Your task to perform on an android device: change your default location settings in chrome Image 0: 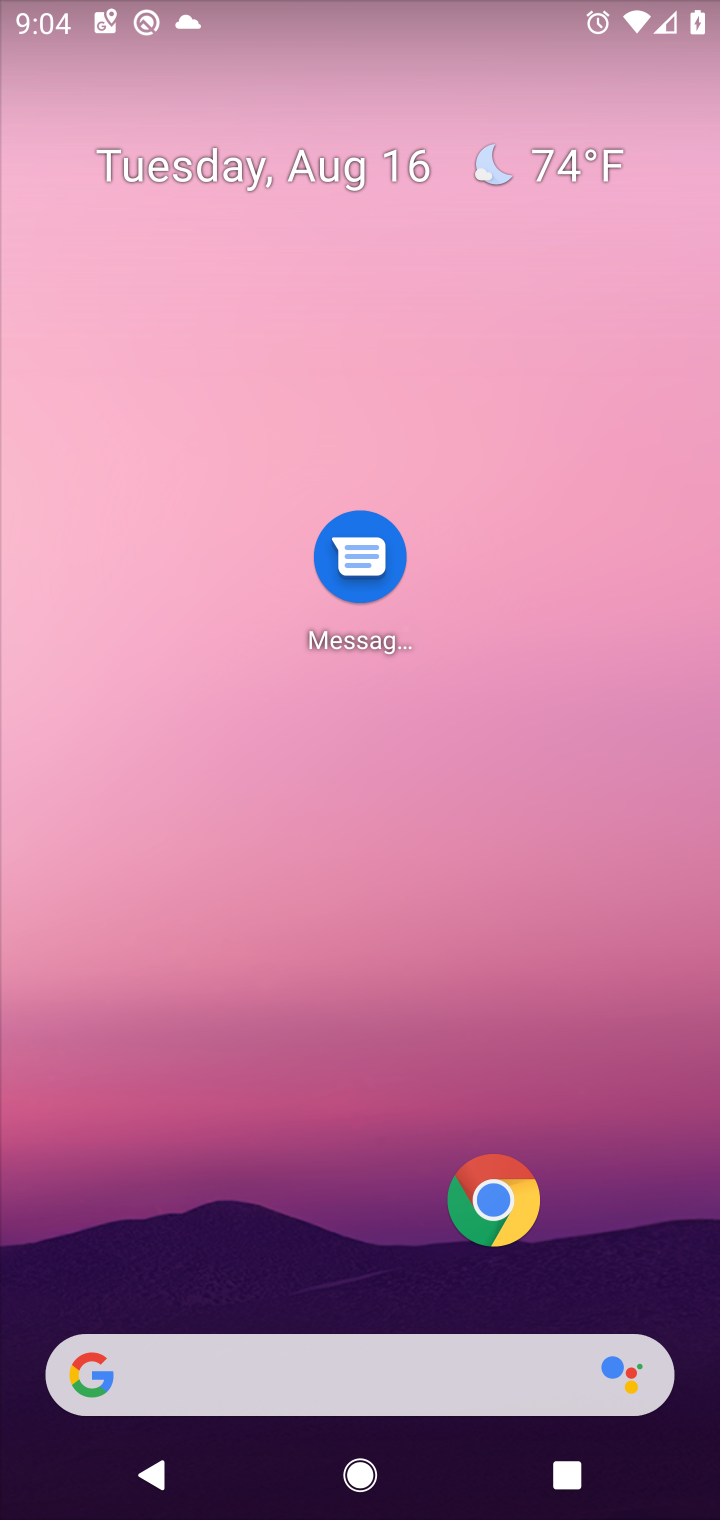
Step 0: click (476, 1203)
Your task to perform on an android device: change your default location settings in chrome Image 1: 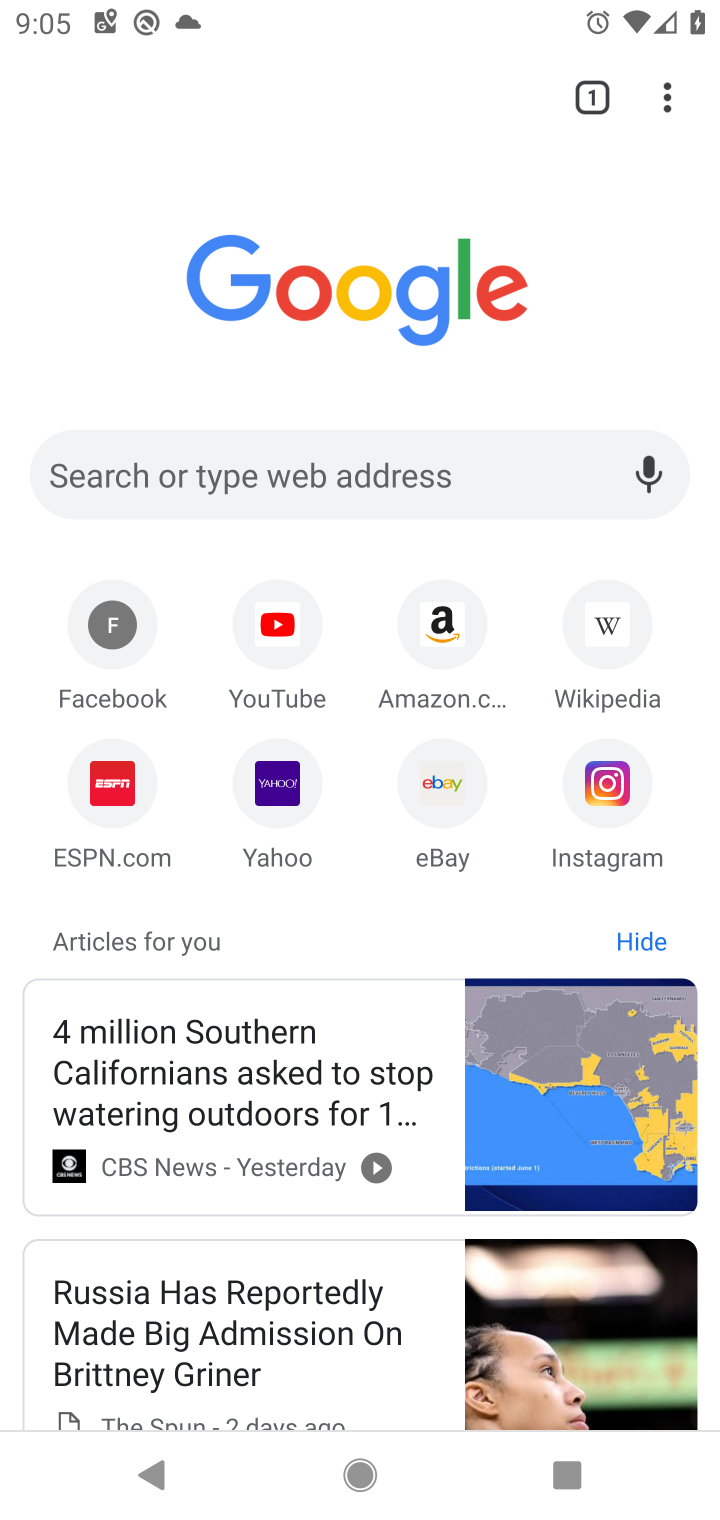
Step 1: click (669, 106)
Your task to perform on an android device: change your default location settings in chrome Image 2: 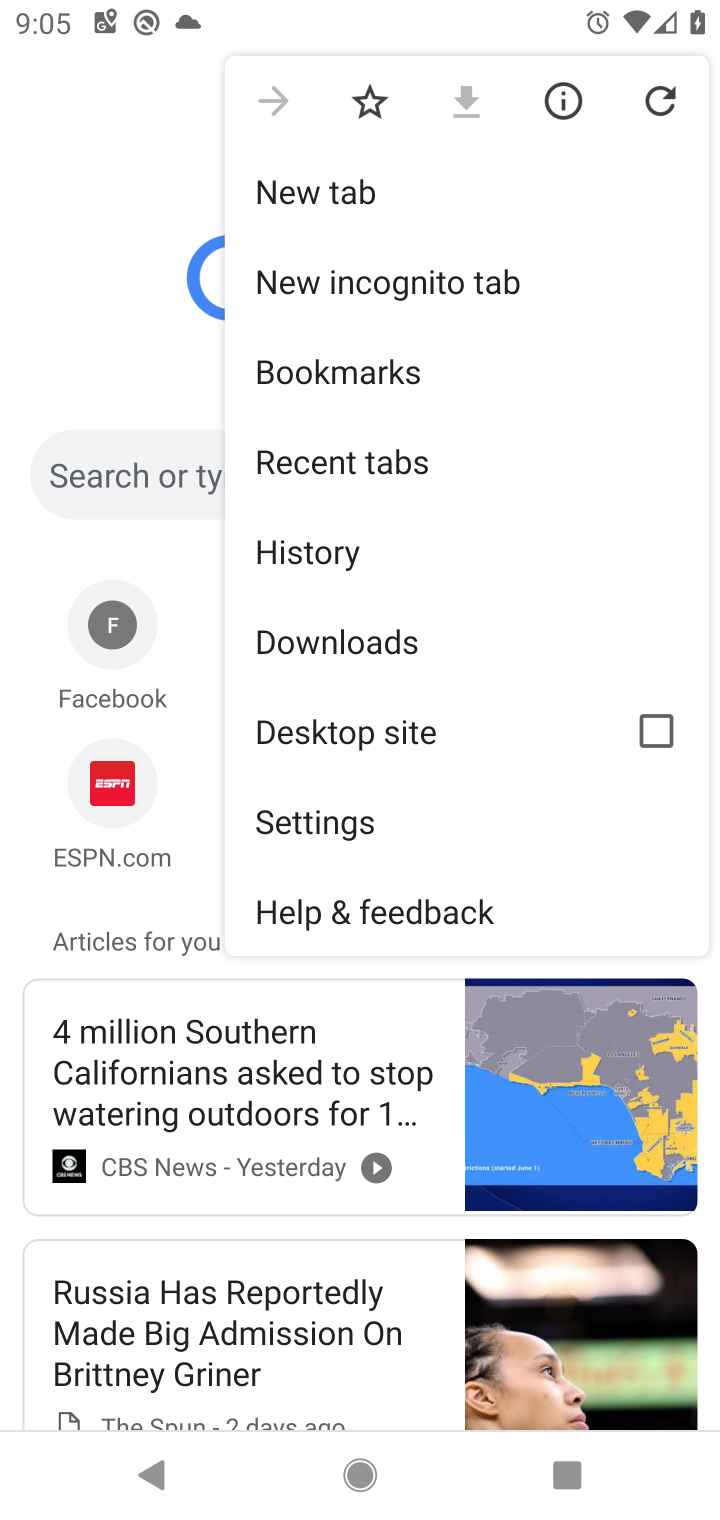
Step 2: click (342, 817)
Your task to perform on an android device: change your default location settings in chrome Image 3: 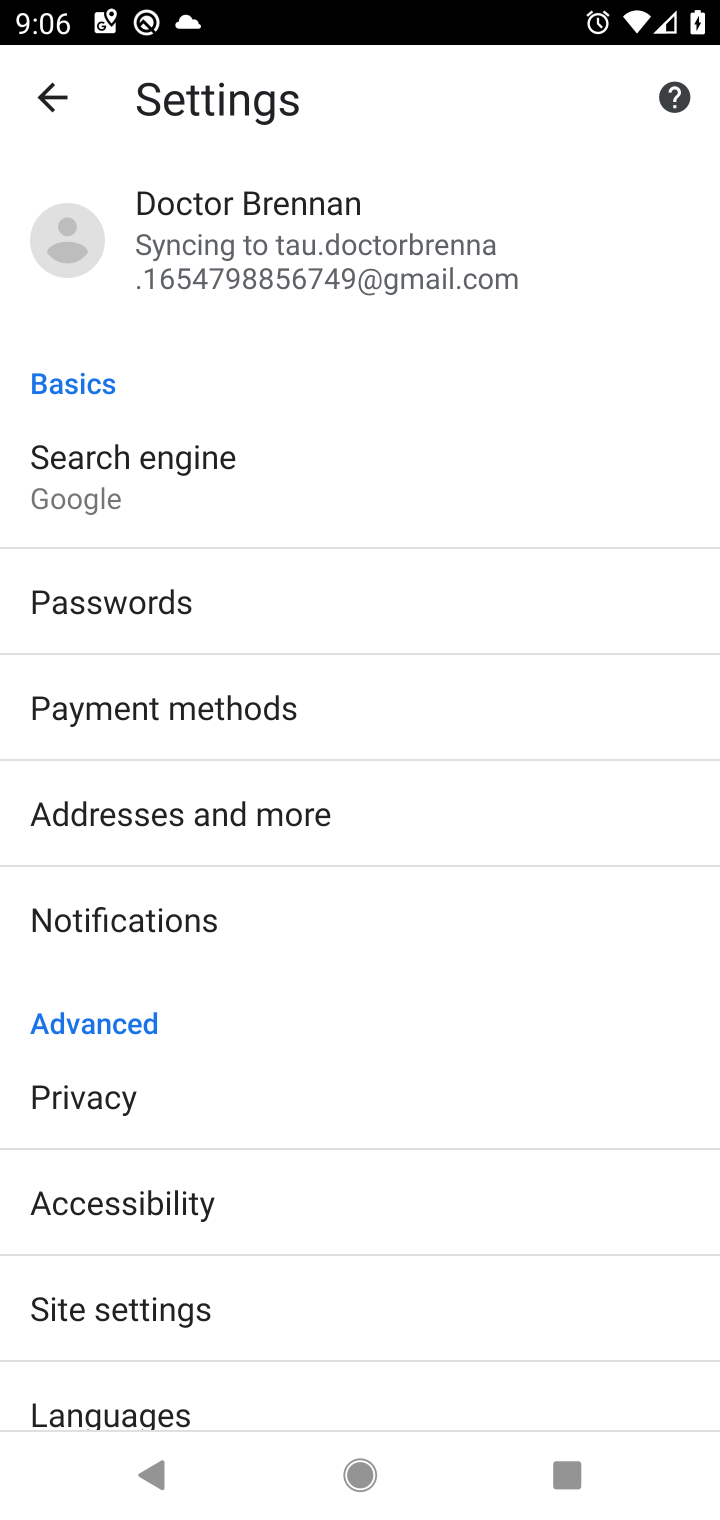
Step 3: drag from (347, 1313) to (345, 699)
Your task to perform on an android device: change your default location settings in chrome Image 4: 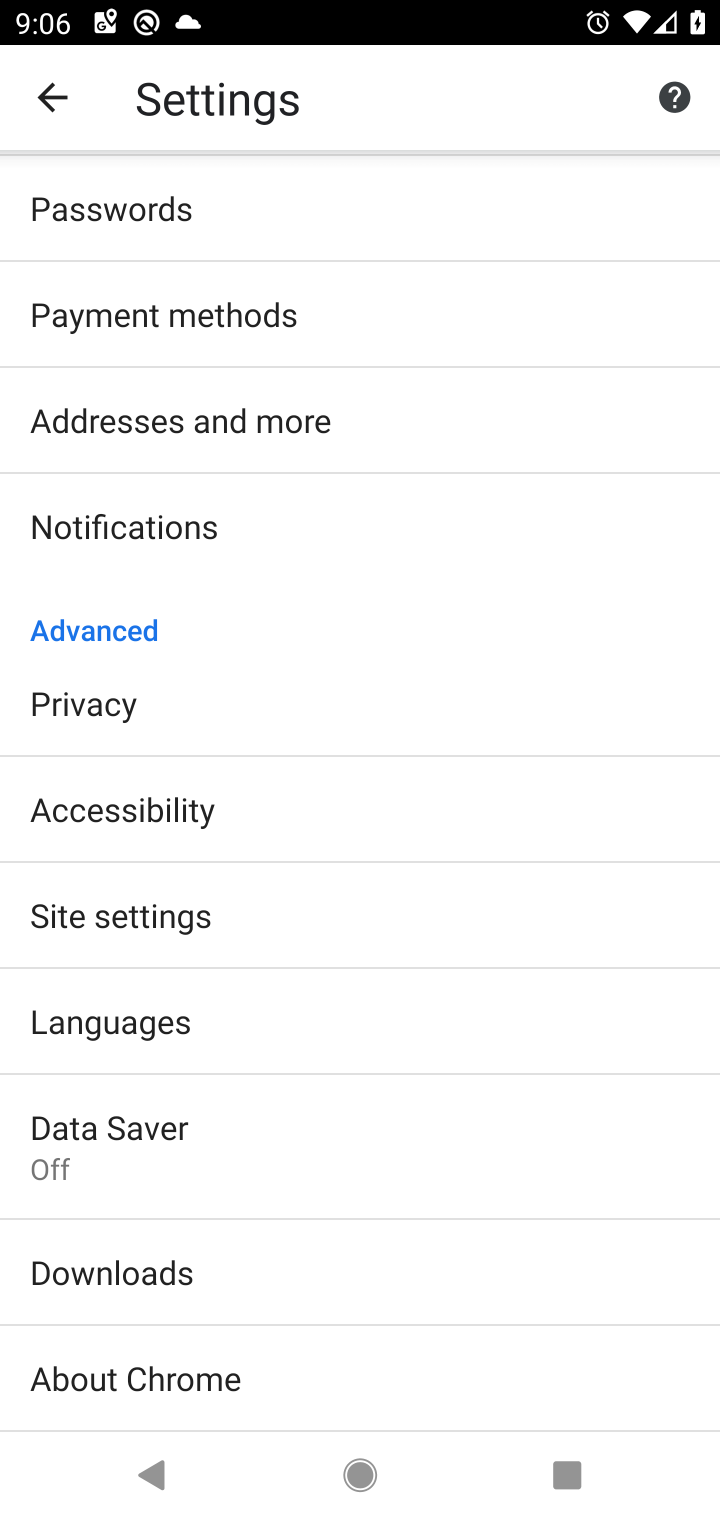
Step 4: click (445, 1198)
Your task to perform on an android device: change your default location settings in chrome Image 5: 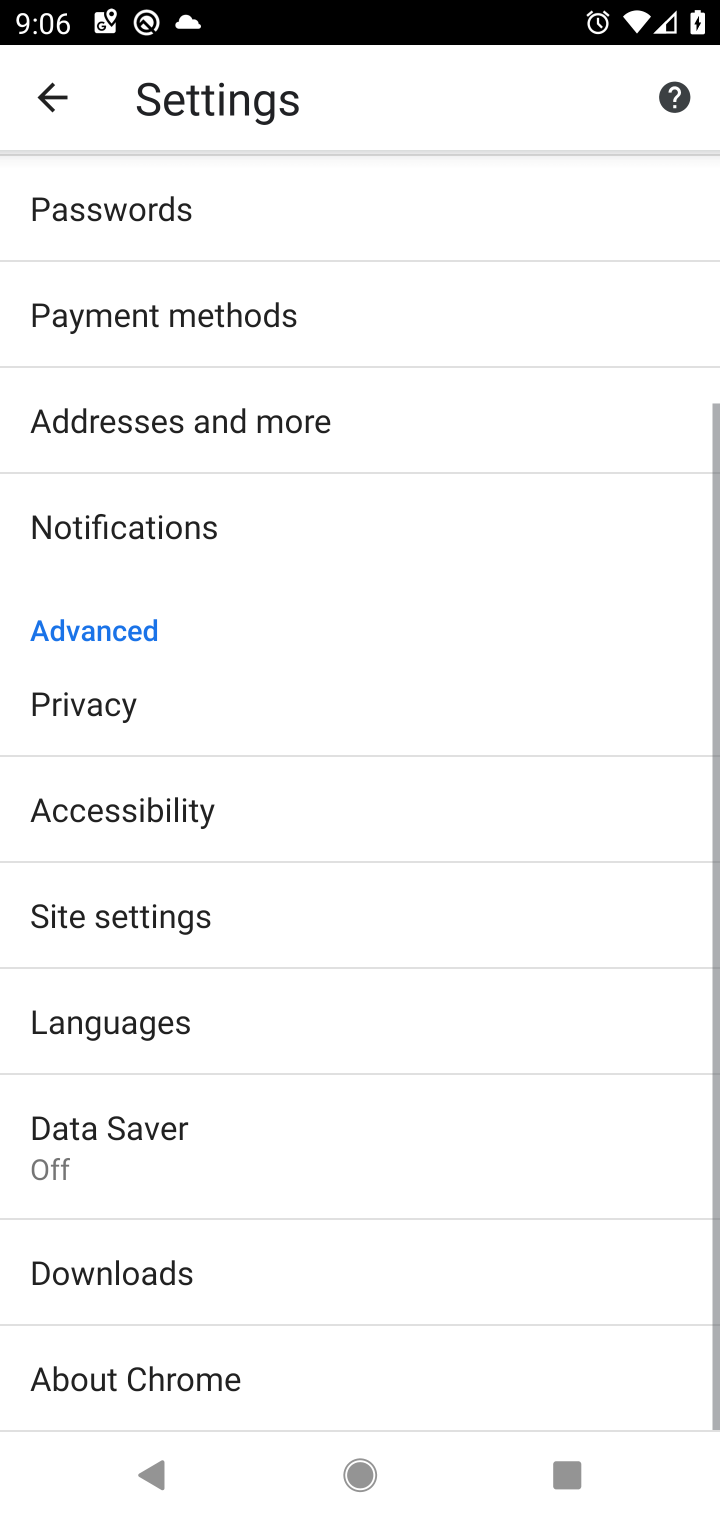
Step 5: drag from (505, 1269) to (526, 629)
Your task to perform on an android device: change your default location settings in chrome Image 6: 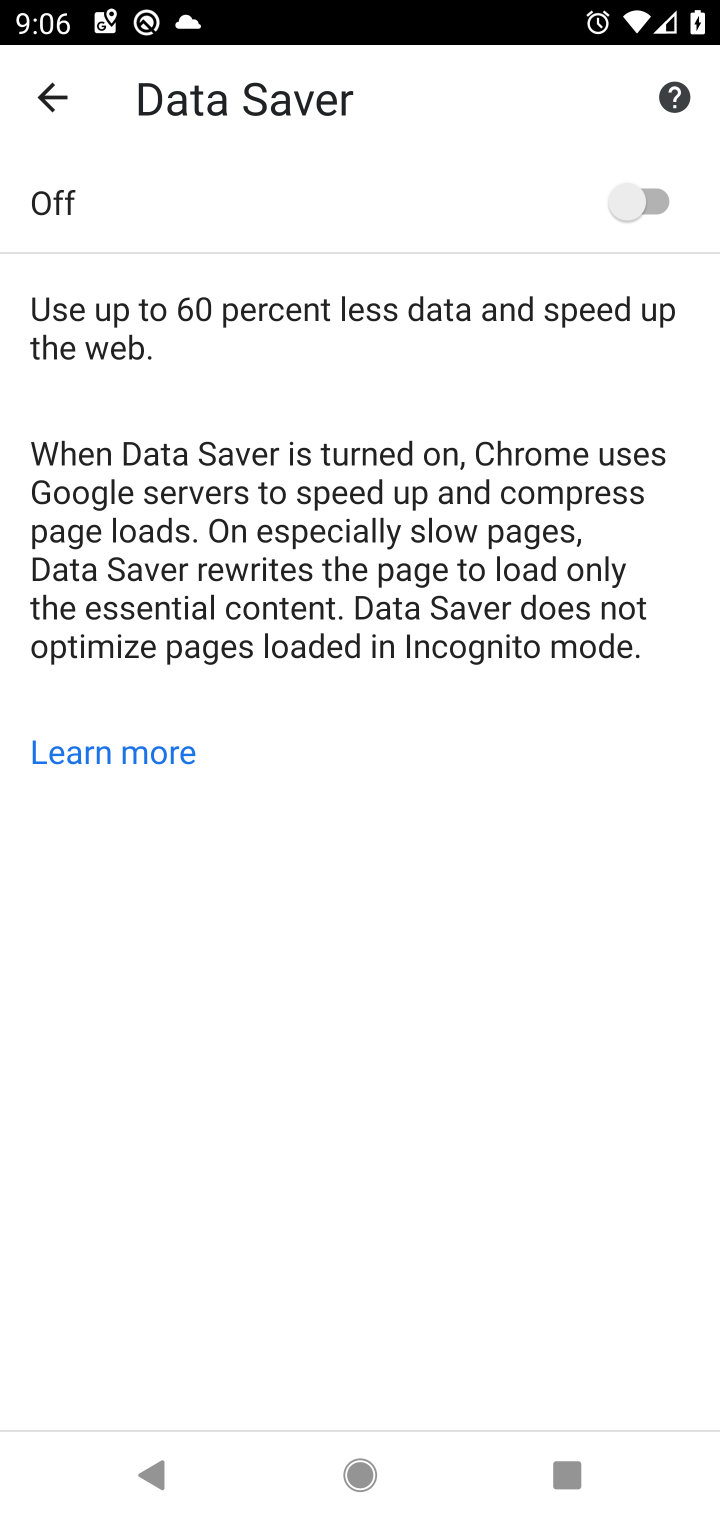
Step 6: click (45, 97)
Your task to perform on an android device: change your default location settings in chrome Image 7: 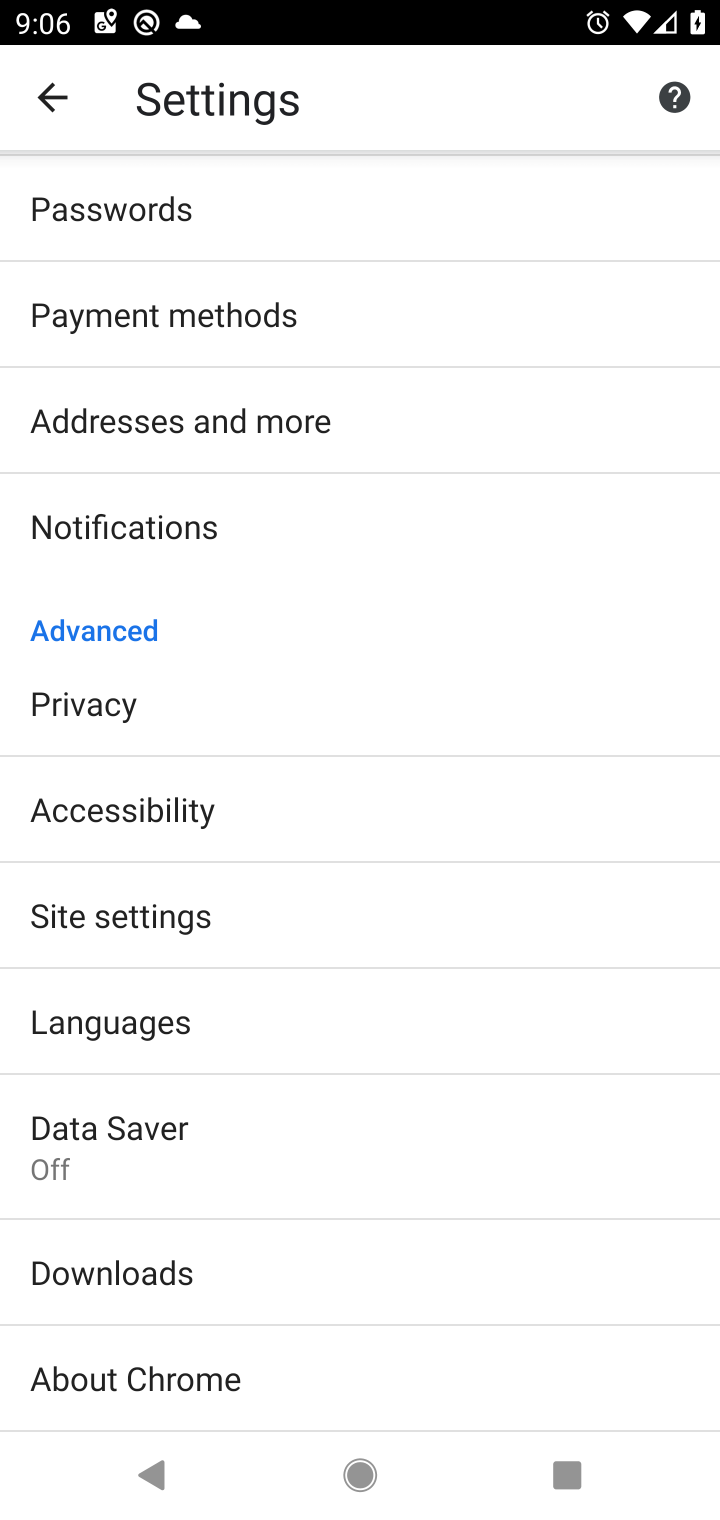
Step 7: click (45, 97)
Your task to perform on an android device: change your default location settings in chrome Image 8: 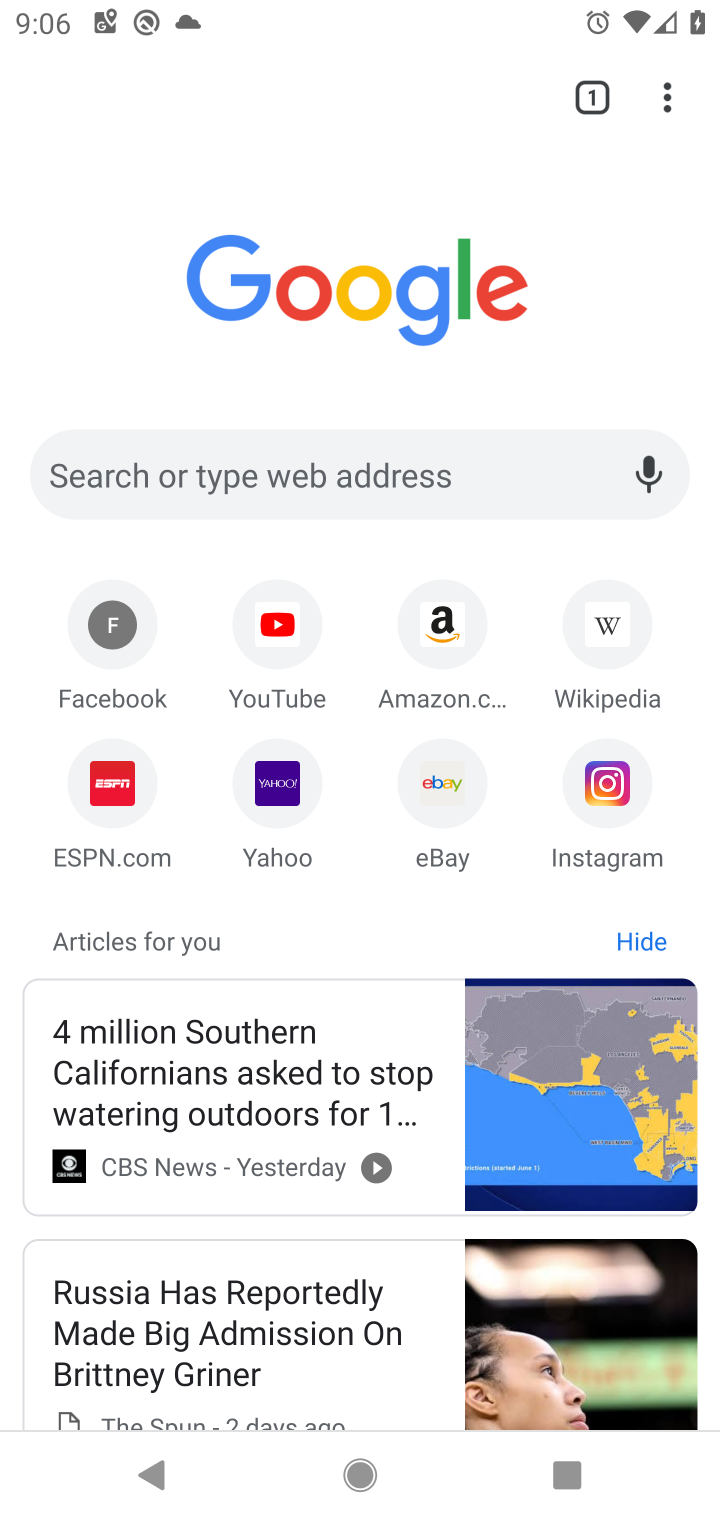
Step 8: click (670, 104)
Your task to perform on an android device: change your default location settings in chrome Image 9: 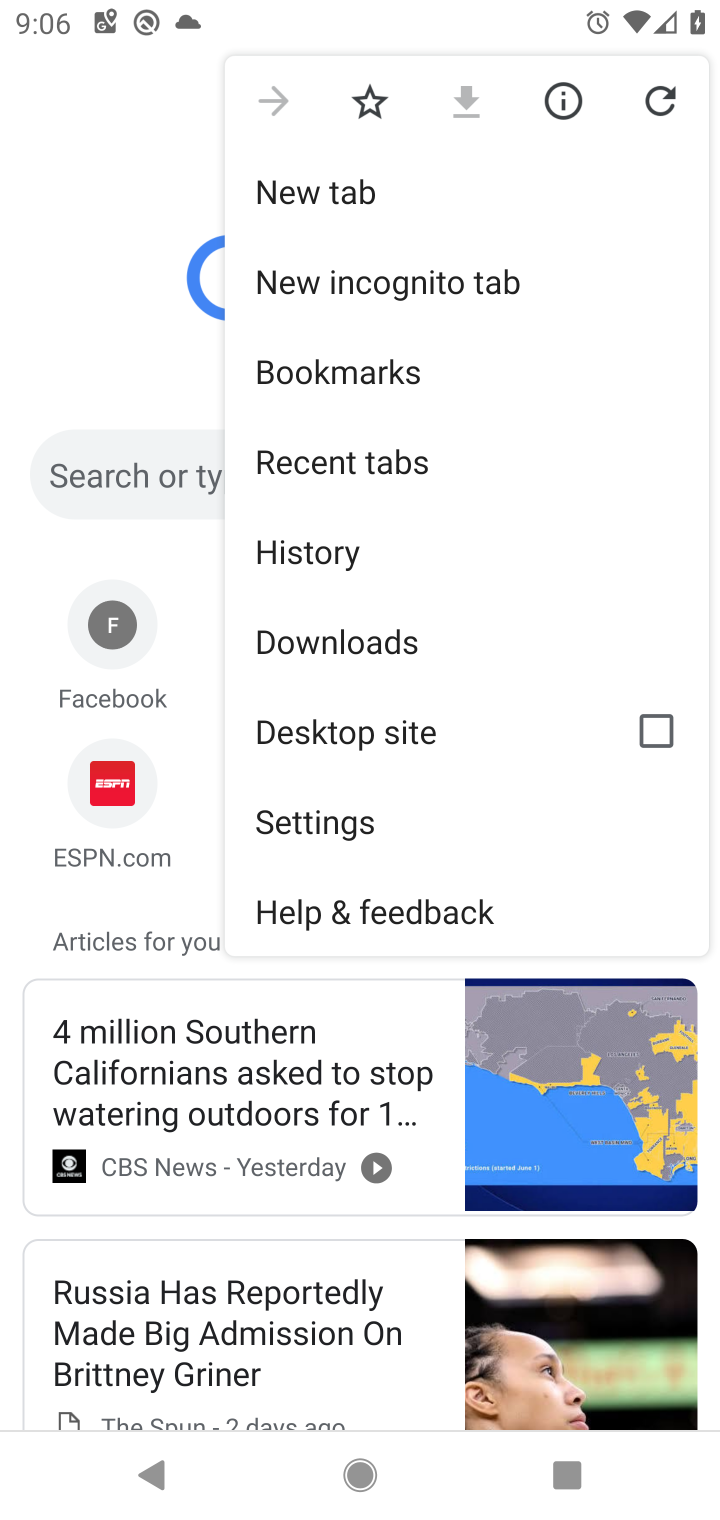
Step 9: click (313, 802)
Your task to perform on an android device: change your default location settings in chrome Image 10: 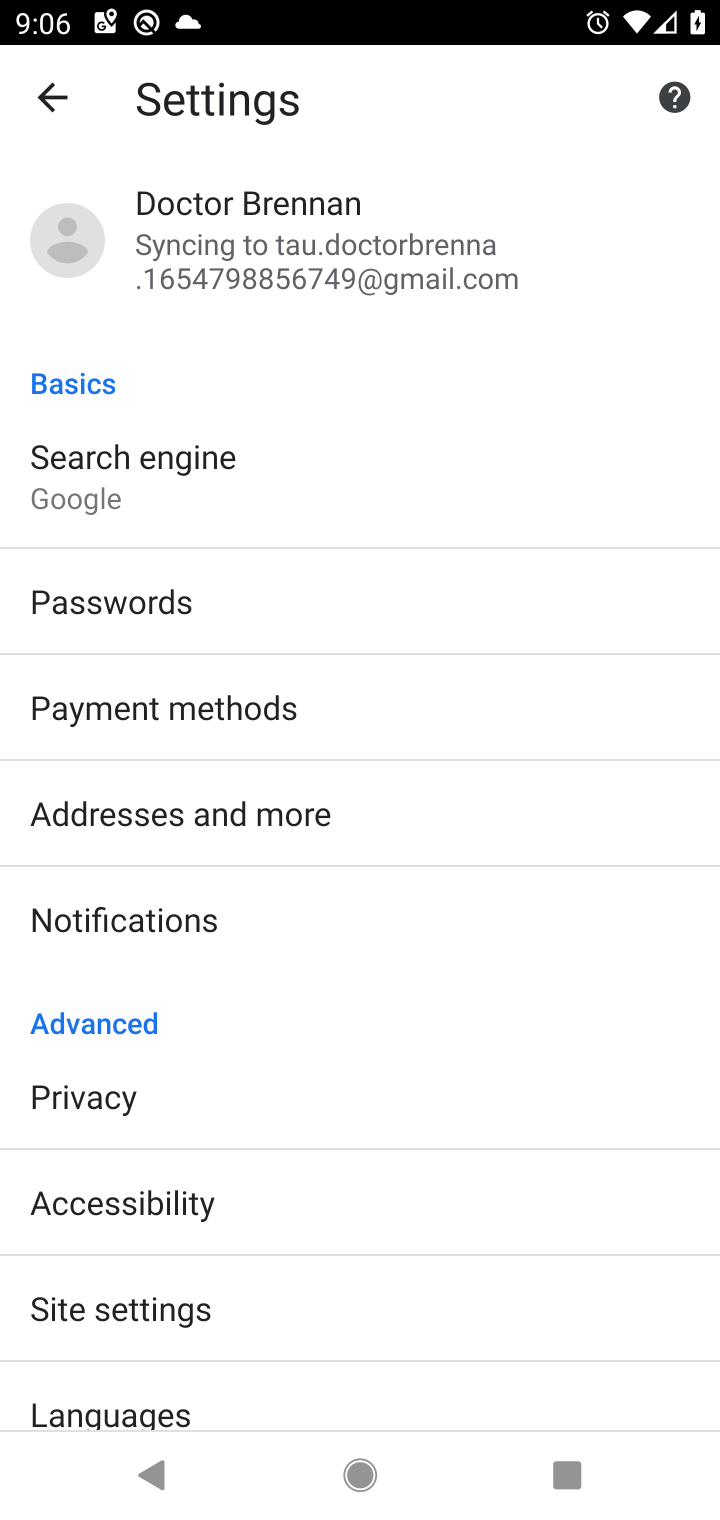
Step 10: click (129, 1328)
Your task to perform on an android device: change your default location settings in chrome Image 11: 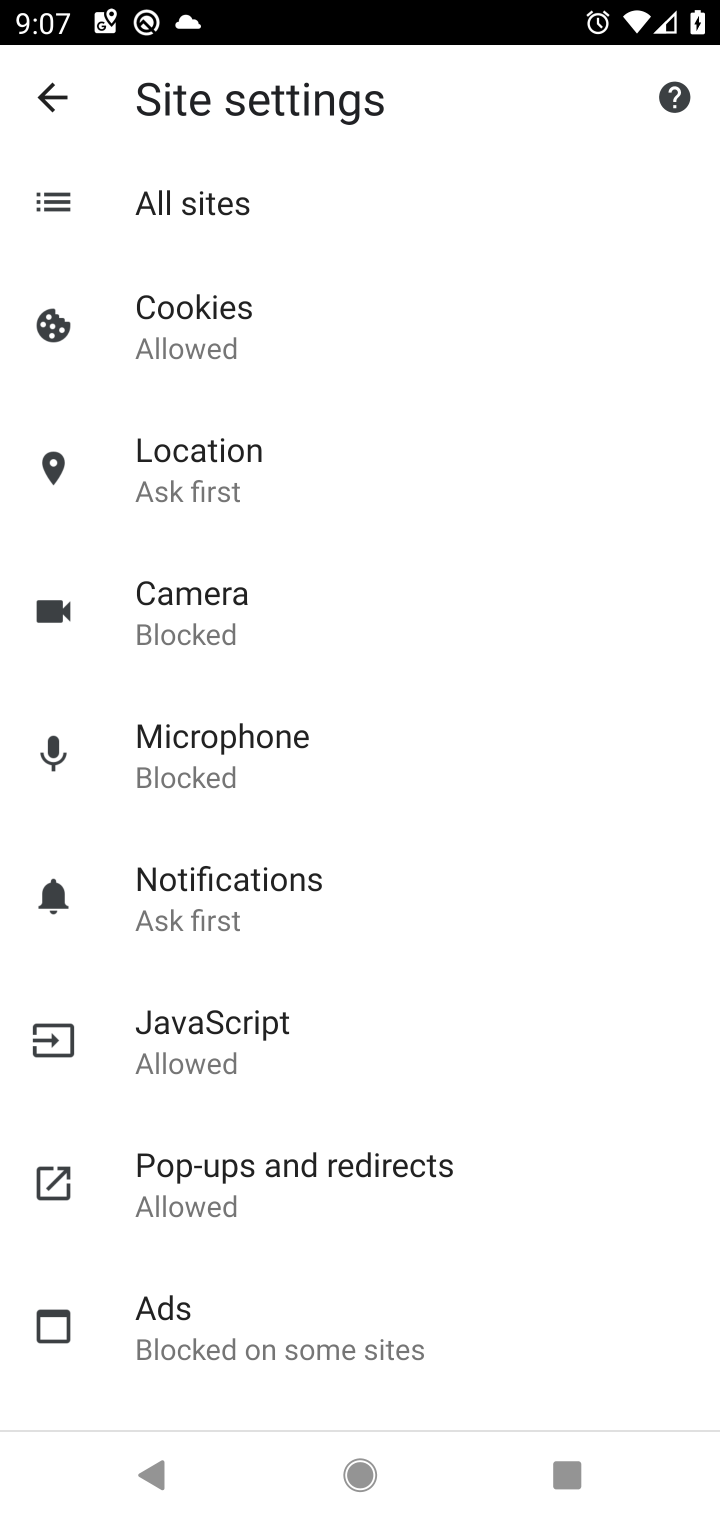
Step 11: click (220, 481)
Your task to perform on an android device: change your default location settings in chrome Image 12: 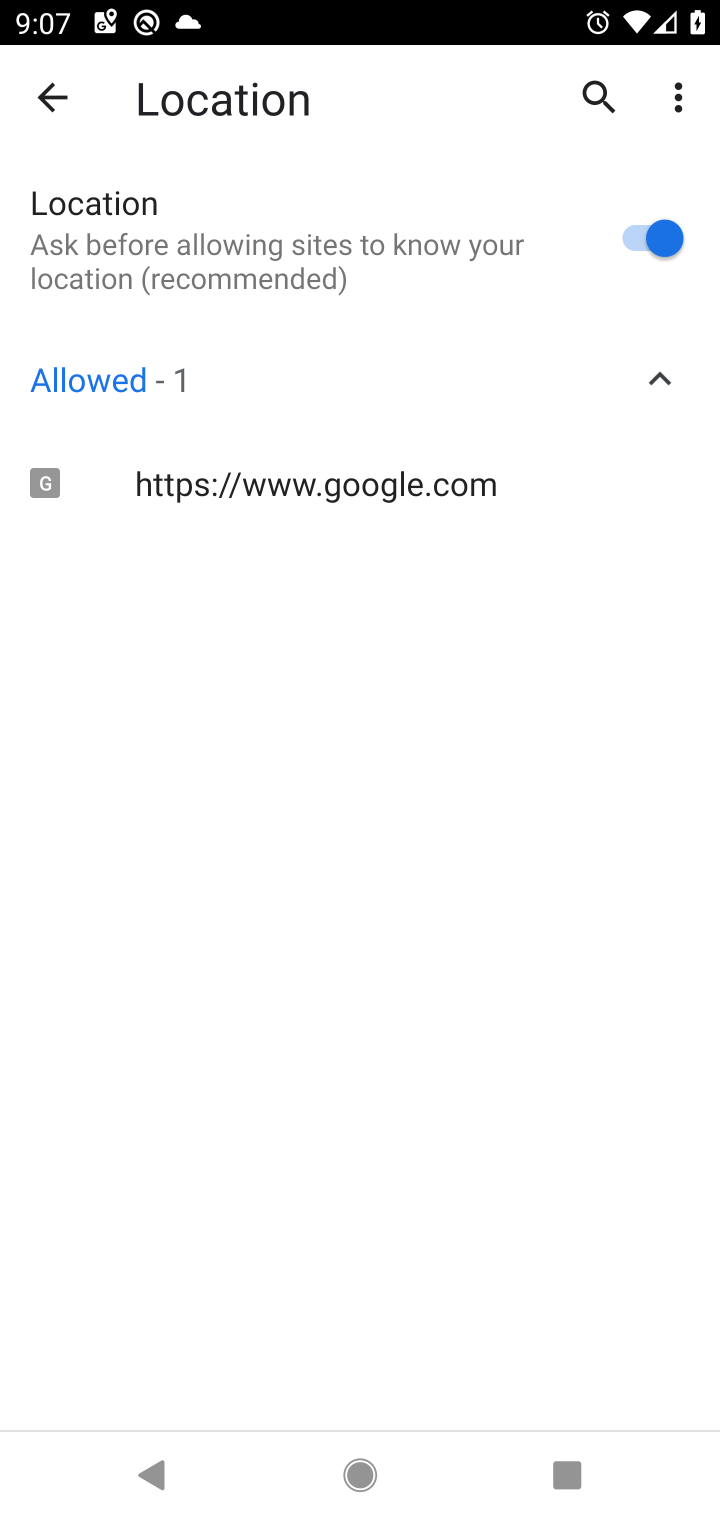
Step 12: click (671, 244)
Your task to perform on an android device: change your default location settings in chrome Image 13: 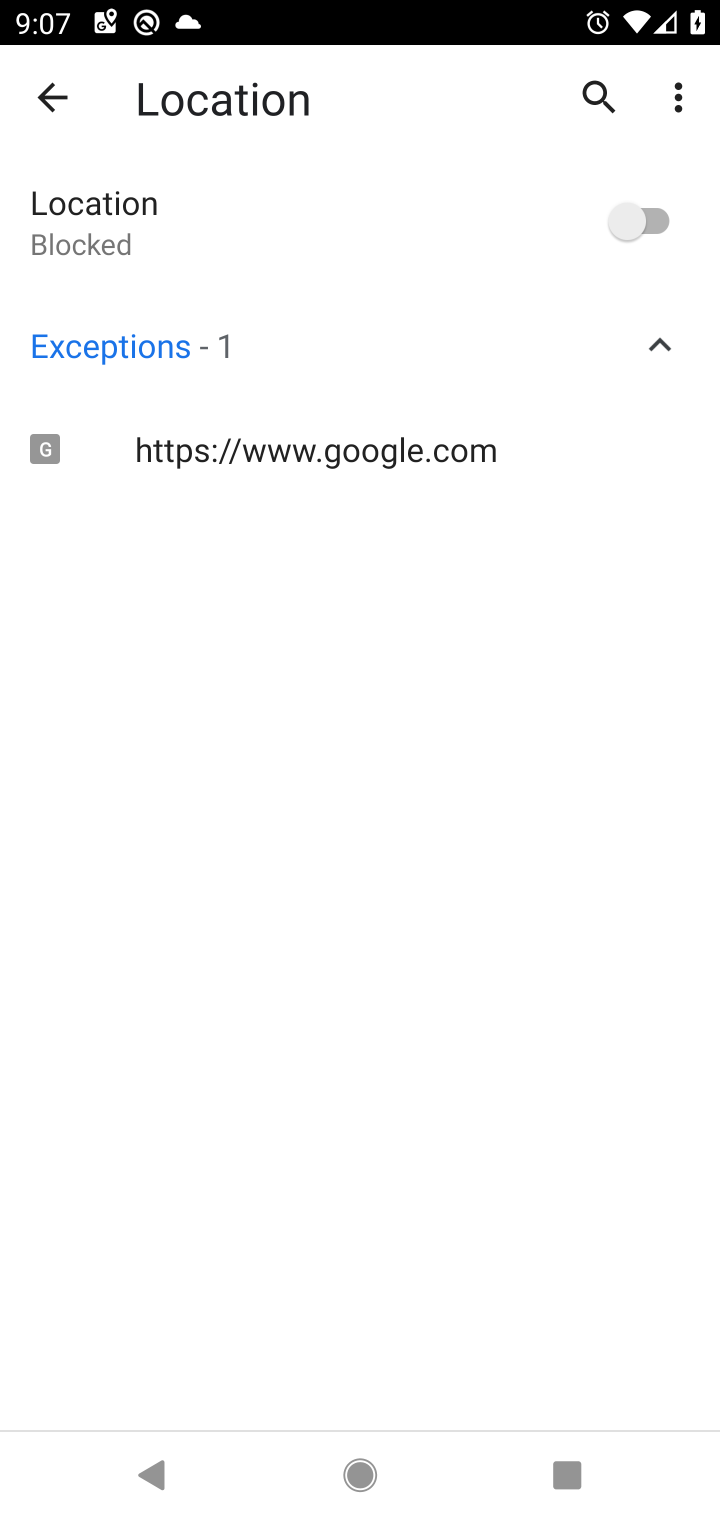
Step 13: task complete